Your task to perform on an android device: Open internet settings Image 0: 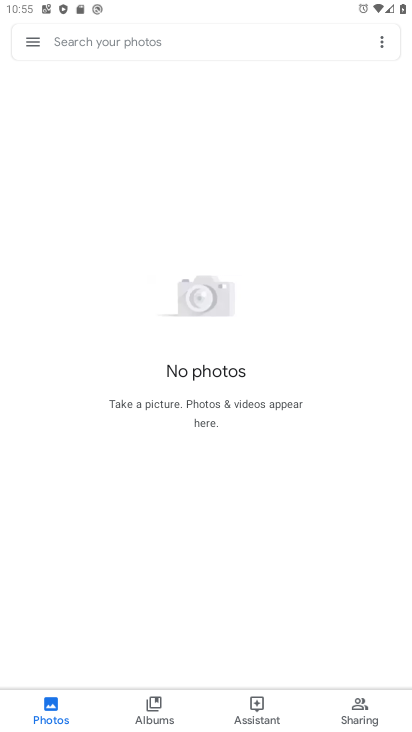
Step 0: press home button
Your task to perform on an android device: Open internet settings Image 1: 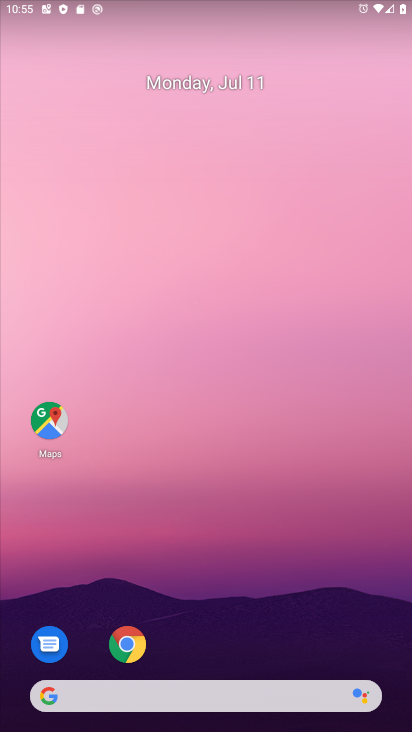
Step 1: drag from (204, 658) to (248, 21)
Your task to perform on an android device: Open internet settings Image 2: 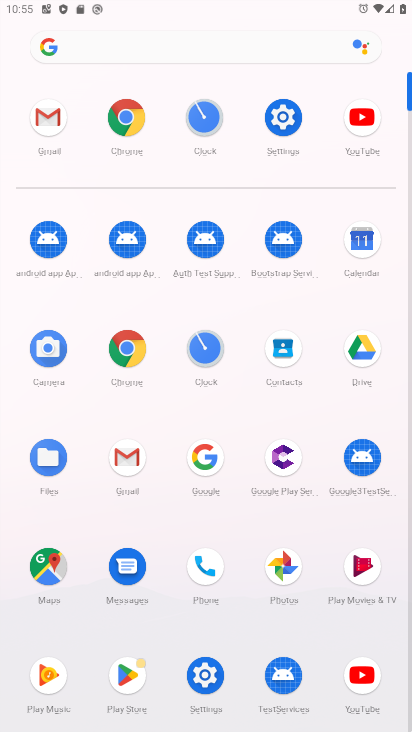
Step 2: click (279, 110)
Your task to perform on an android device: Open internet settings Image 3: 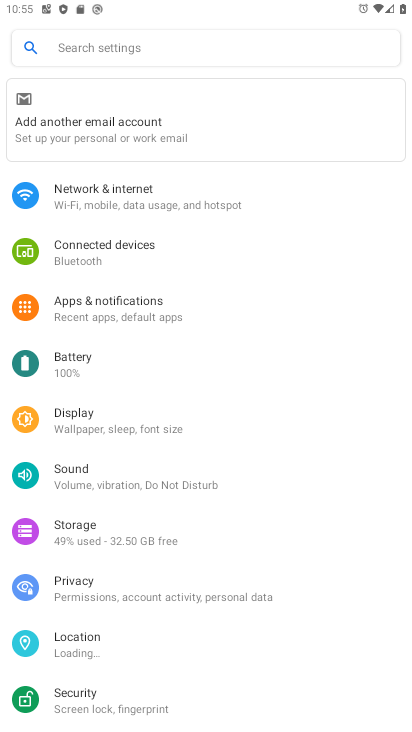
Step 3: click (161, 197)
Your task to perform on an android device: Open internet settings Image 4: 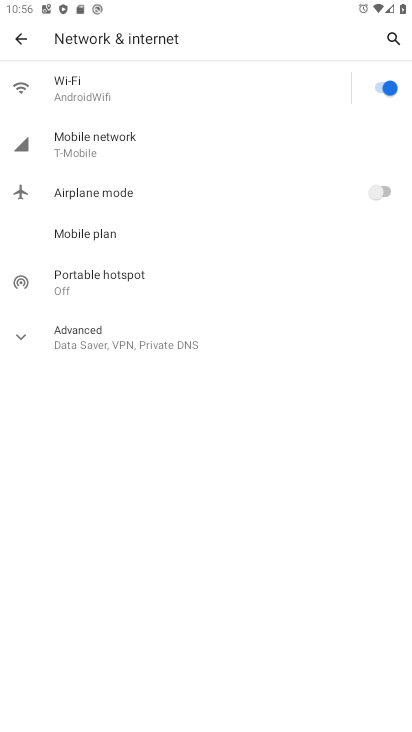
Step 4: click (22, 331)
Your task to perform on an android device: Open internet settings Image 5: 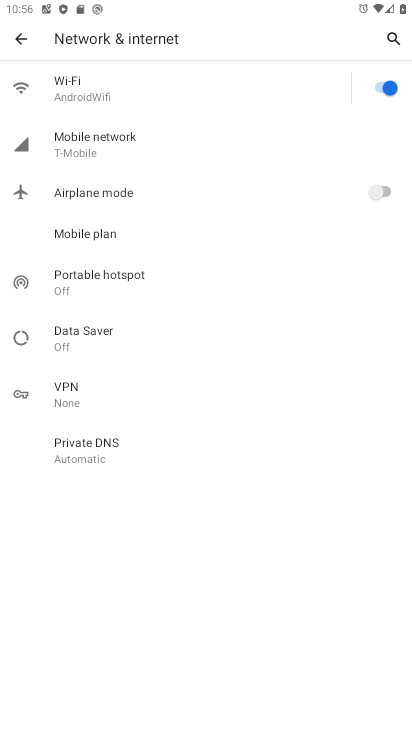
Step 5: task complete